Your task to perform on an android device: check out phone information Image 0: 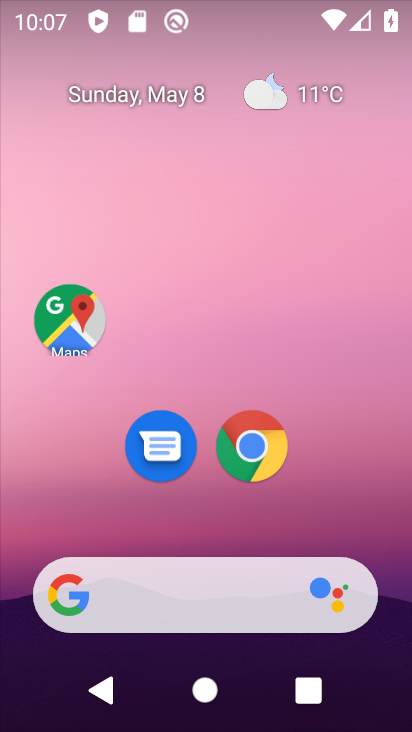
Step 0: drag from (361, 543) to (303, 3)
Your task to perform on an android device: check out phone information Image 1: 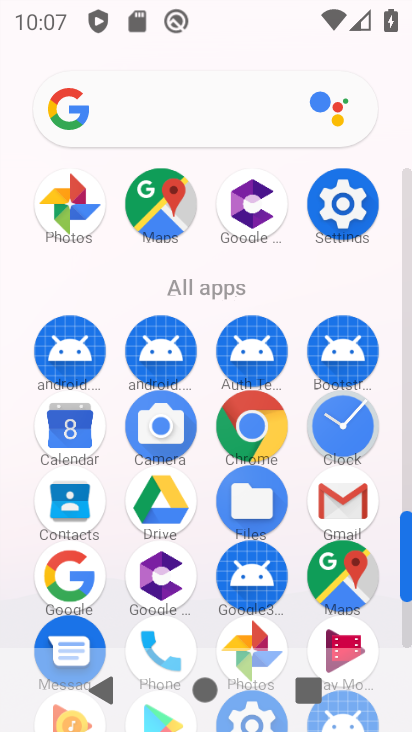
Step 1: click (342, 202)
Your task to perform on an android device: check out phone information Image 2: 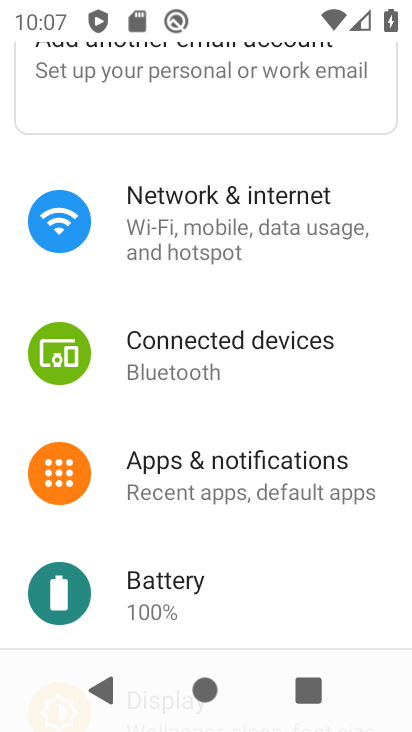
Step 2: drag from (361, 579) to (336, 83)
Your task to perform on an android device: check out phone information Image 3: 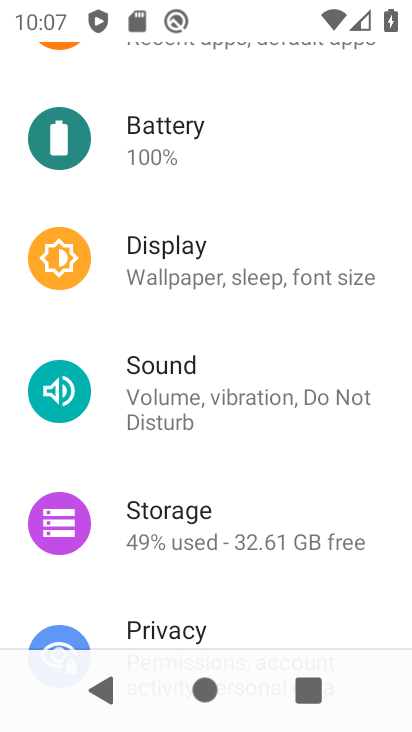
Step 3: drag from (304, 379) to (280, 135)
Your task to perform on an android device: check out phone information Image 4: 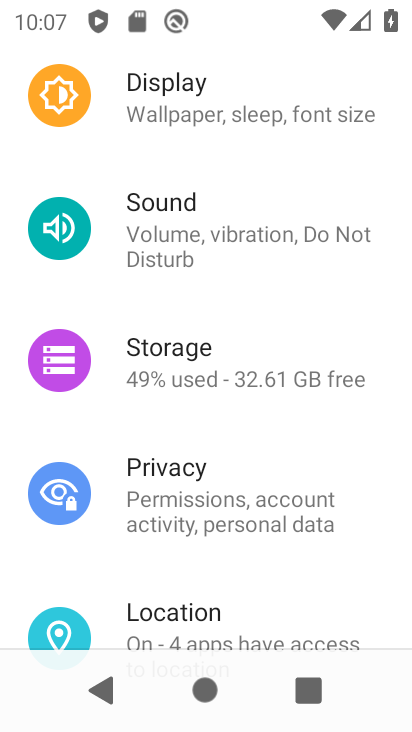
Step 4: drag from (285, 586) to (278, 116)
Your task to perform on an android device: check out phone information Image 5: 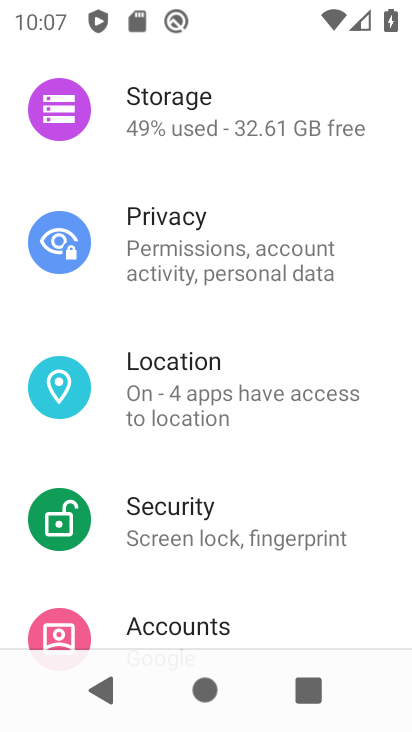
Step 5: drag from (292, 447) to (294, 103)
Your task to perform on an android device: check out phone information Image 6: 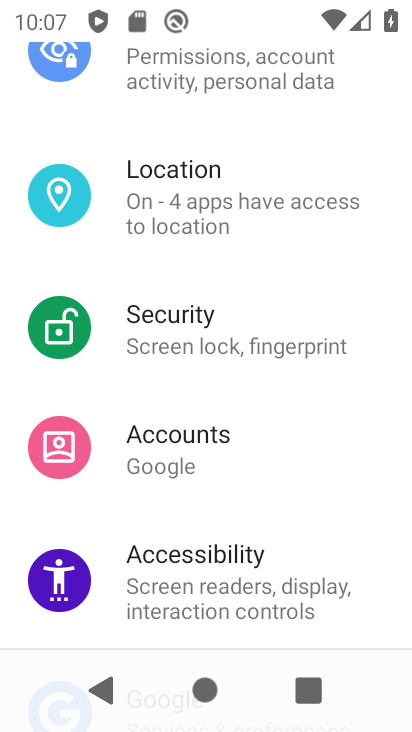
Step 6: drag from (378, 563) to (370, 121)
Your task to perform on an android device: check out phone information Image 7: 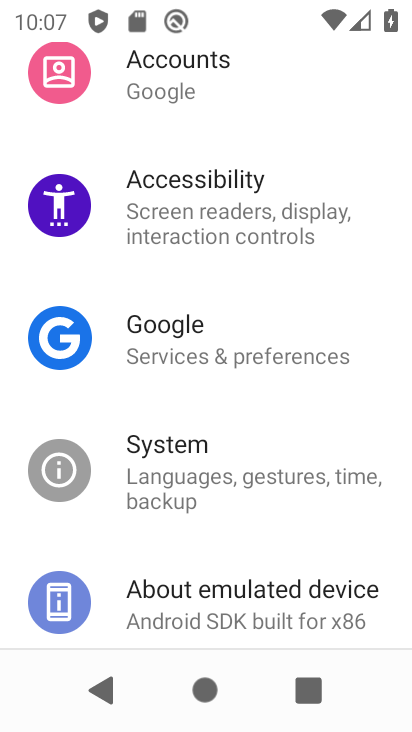
Step 7: drag from (371, 611) to (371, 210)
Your task to perform on an android device: check out phone information Image 8: 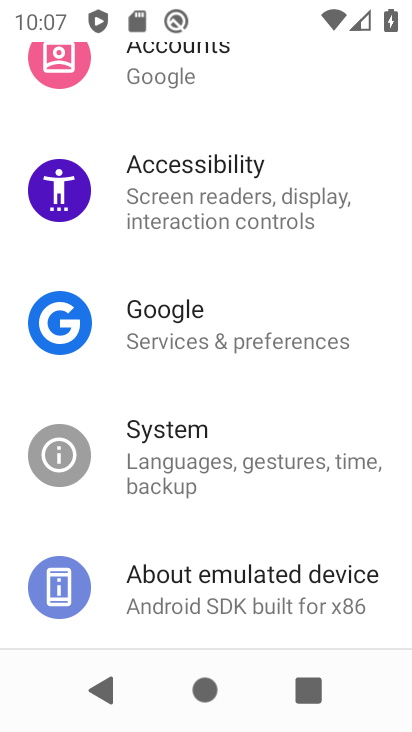
Step 8: click (226, 584)
Your task to perform on an android device: check out phone information Image 9: 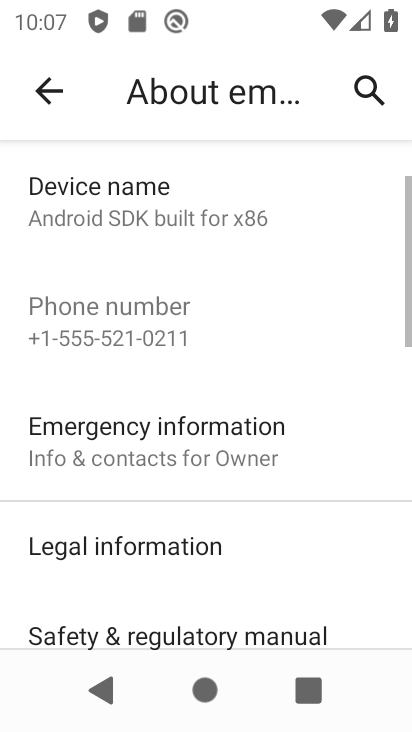
Step 9: task complete